Your task to perform on an android device: turn on translation in the chrome app Image 0: 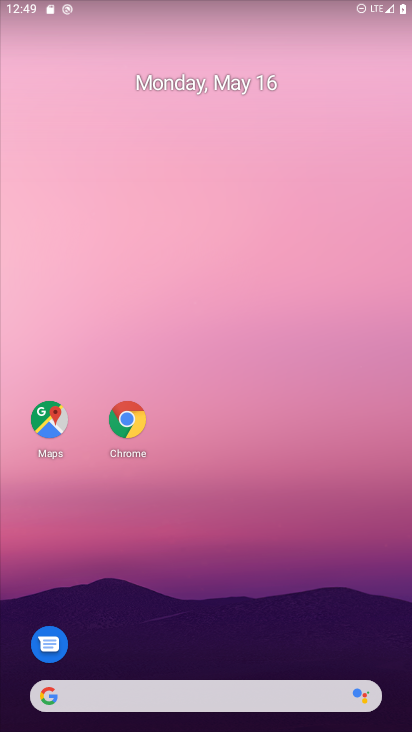
Step 0: drag from (204, 621) to (76, 9)
Your task to perform on an android device: turn on translation in the chrome app Image 1: 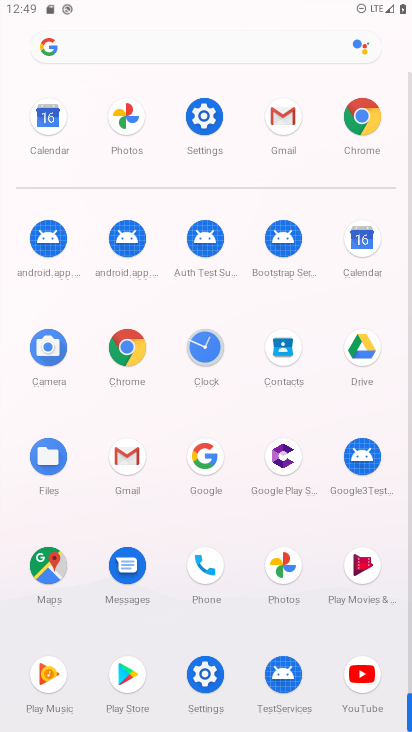
Step 1: click (364, 113)
Your task to perform on an android device: turn on translation in the chrome app Image 2: 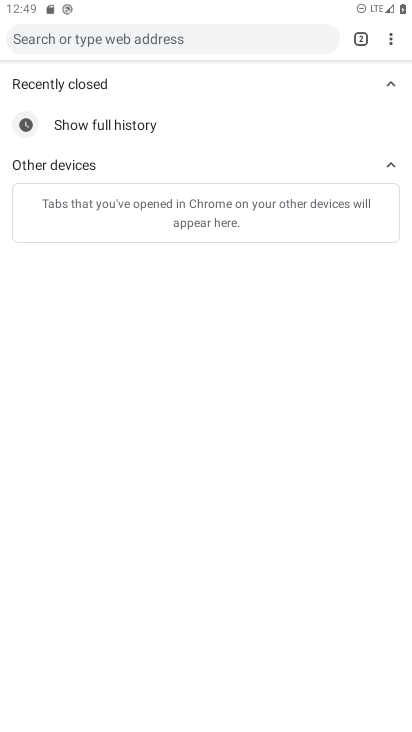
Step 2: click (394, 38)
Your task to perform on an android device: turn on translation in the chrome app Image 3: 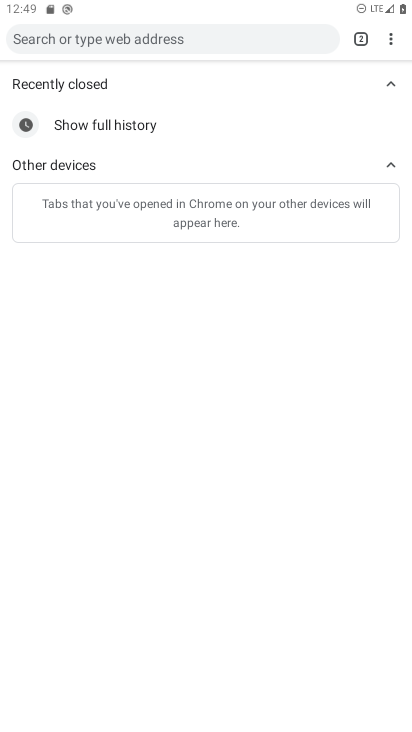
Step 3: click (393, 39)
Your task to perform on an android device: turn on translation in the chrome app Image 4: 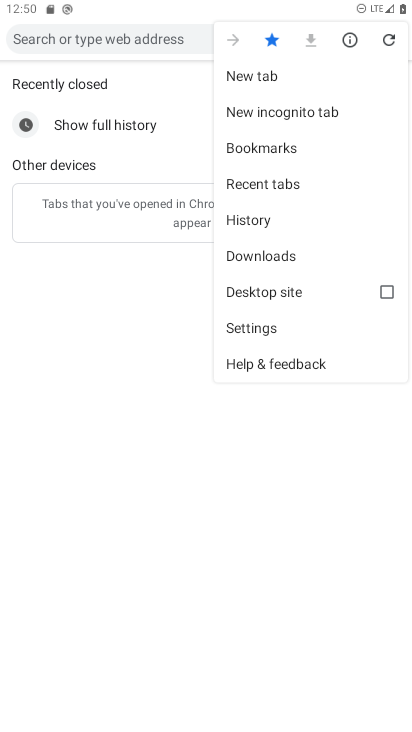
Step 4: click (261, 322)
Your task to perform on an android device: turn on translation in the chrome app Image 5: 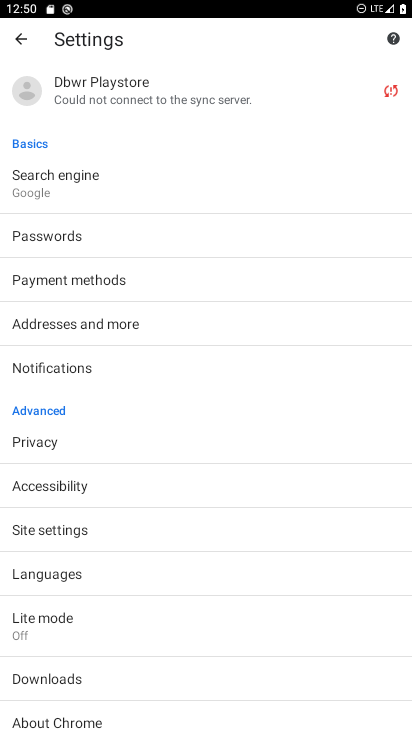
Step 5: click (114, 576)
Your task to perform on an android device: turn on translation in the chrome app Image 6: 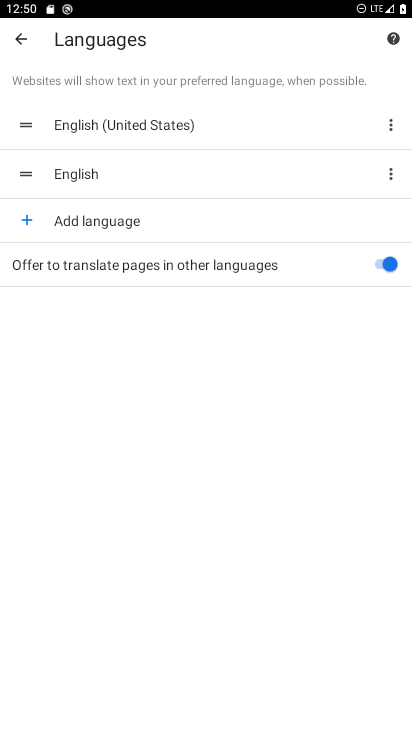
Step 6: task complete